Your task to perform on an android device: open wifi settings Image 0: 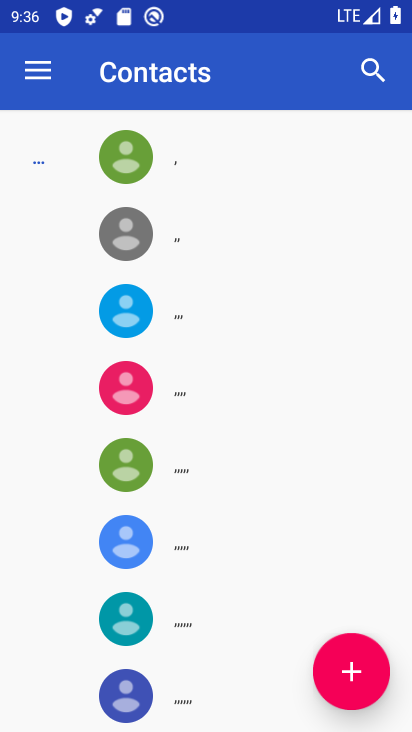
Step 0: press home button
Your task to perform on an android device: open wifi settings Image 1: 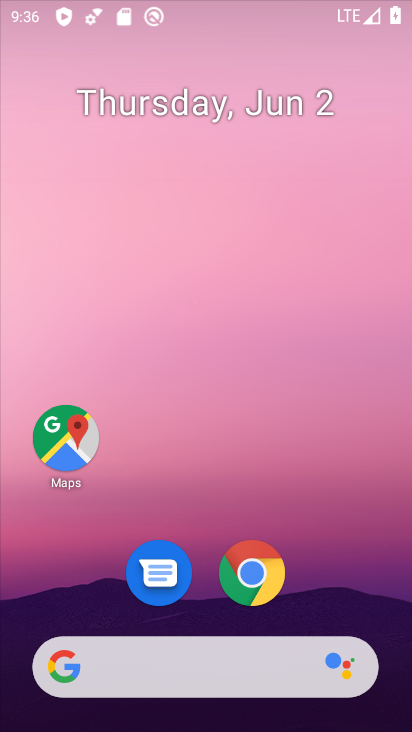
Step 1: drag from (341, 493) to (298, 55)
Your task to perform on an android device: open wifi settings Image 2: 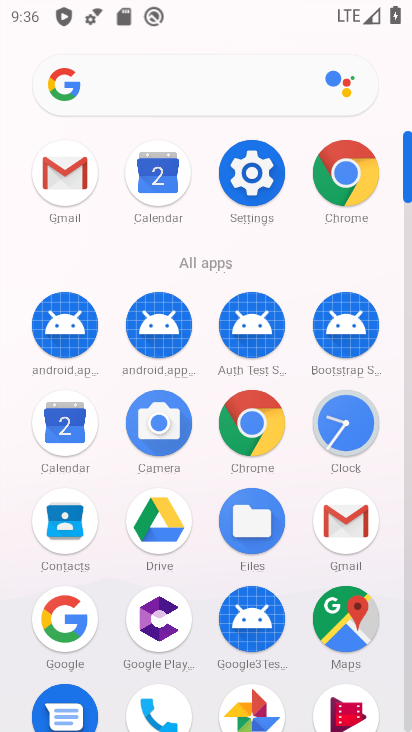
Step 2: click (245, 164)
Your task to perform on an android device: open wifi settings Image 3: 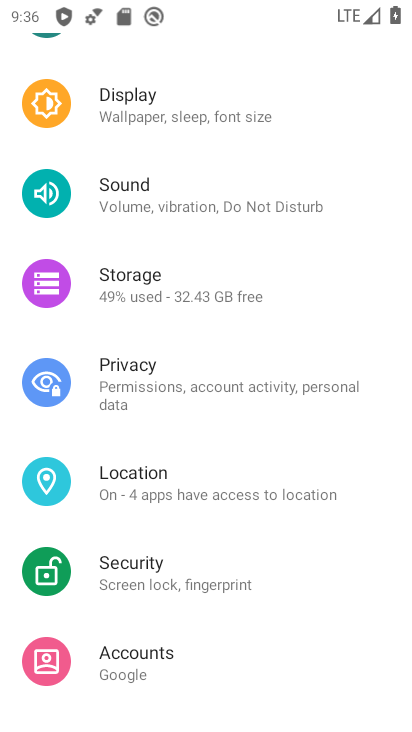
Step 3: drag from (260, 110) to (258, 518)
Your task to perform on an android device: open wifi settings Image 4: 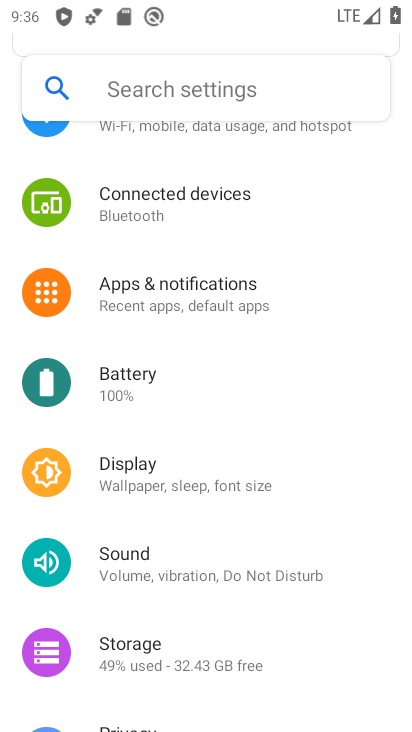
Step 4: drag from (247, 177) to (232, 586)
Your task to perform on an android device: open wifi settings Image 5: 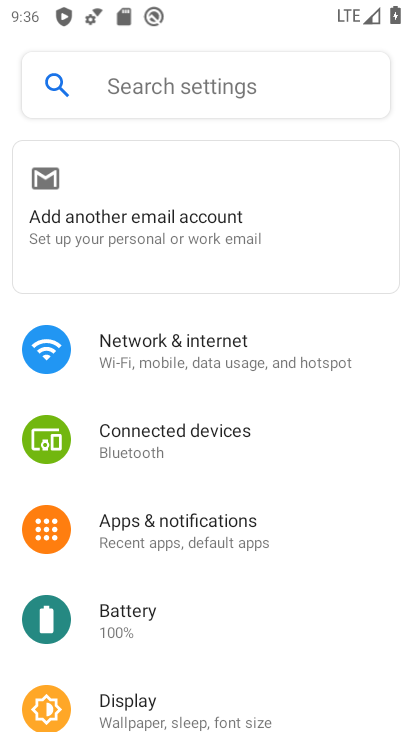
Step 5: click (167, 353)
Your task to perform on an android device: open wifi settings Image 6: 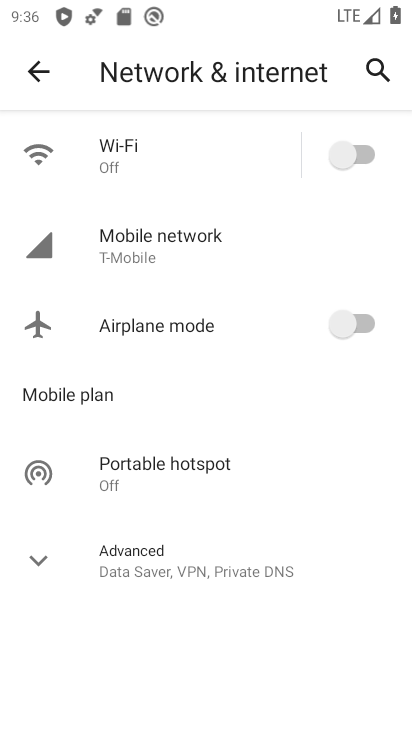
Step 6: click (192, 158)
Your task to perform on an android device: open wifi settings Image 7: 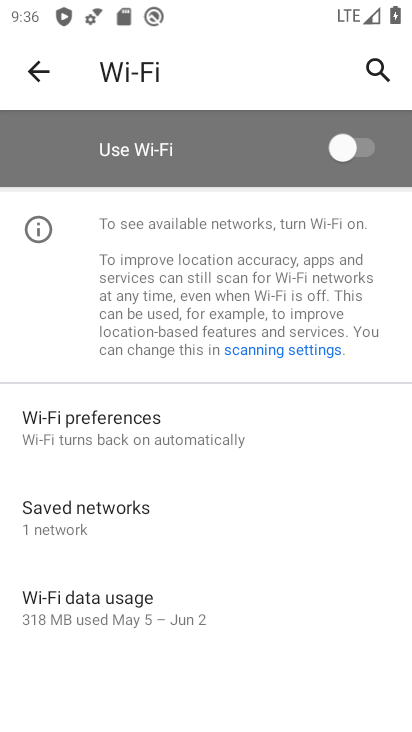
Step 7: click (366, 140)
Your task to perform on an android device: open wifi settings Image 8: 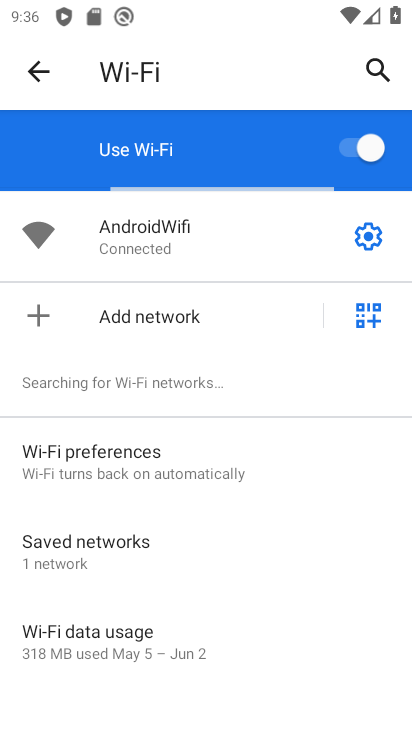
Step 8: click (371, 240)
Your task to perform on an android device: open wifi settings Image 9: 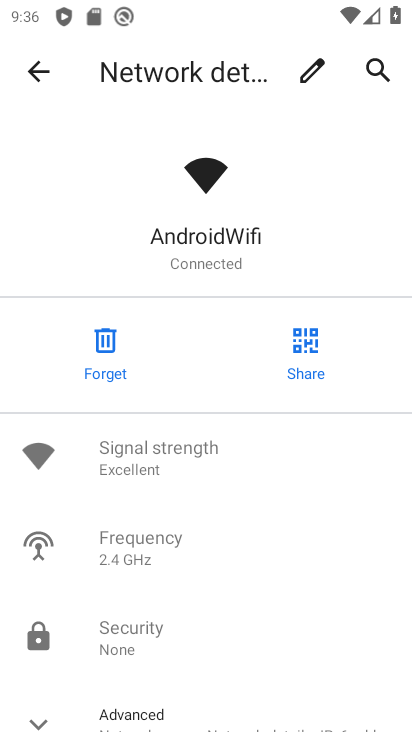
Step 9: task complete